Your task to perform on an android device: all mails in gmail Image 0: 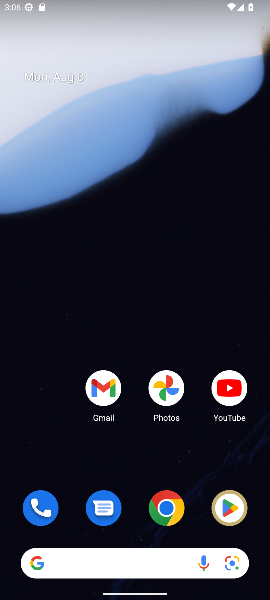
Step 0: click (105, 388)
Your task to perform on an android device: all mails in gmail Image 1: 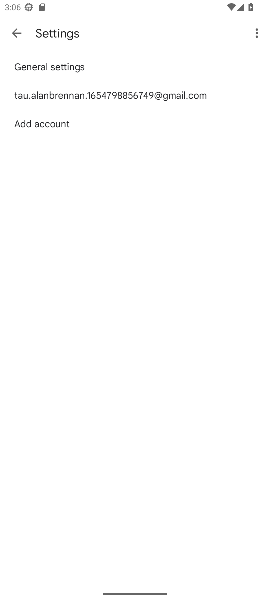
Step 1: click (18, 38)
Your task to perform on an android device: all mails in gmail Image 2: 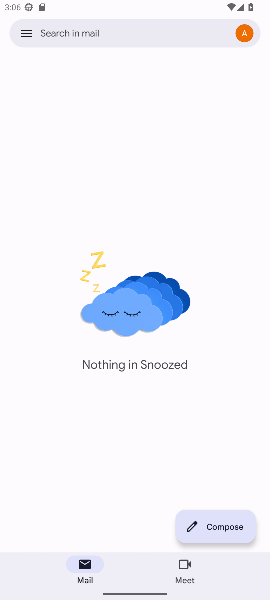
Step 2: click (25, 32)
Your task to perform on an android device: all mails in gmail Image 3: 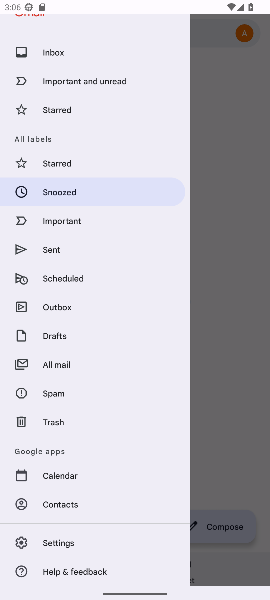
Step 3: click (46, 363)
Your task to perform on an android device: all mails in gmail Image 4: 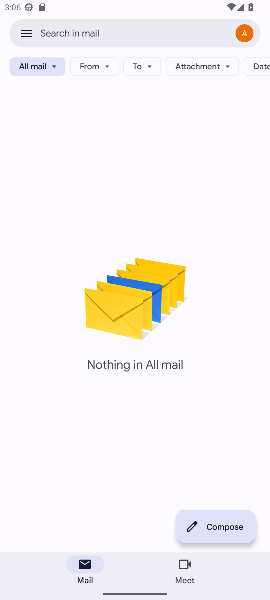
Step 4: task complete